Your task to perform on an android device: turn pop-ups on in chrome Image 0: 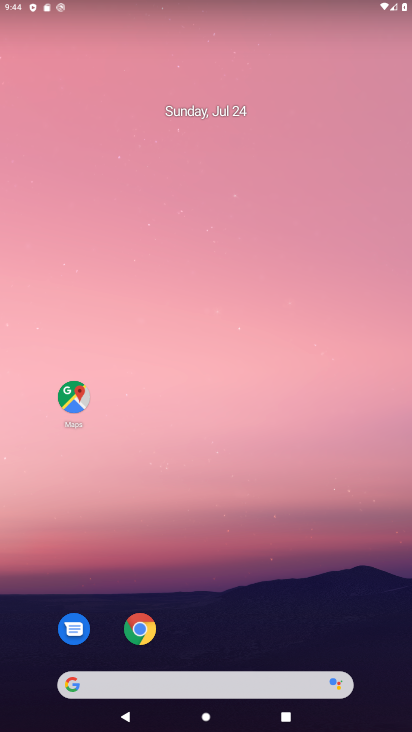
Step 0: click (140, 629)
Your task to perform on an android device: turn pop-ups on in chrome Image 1: 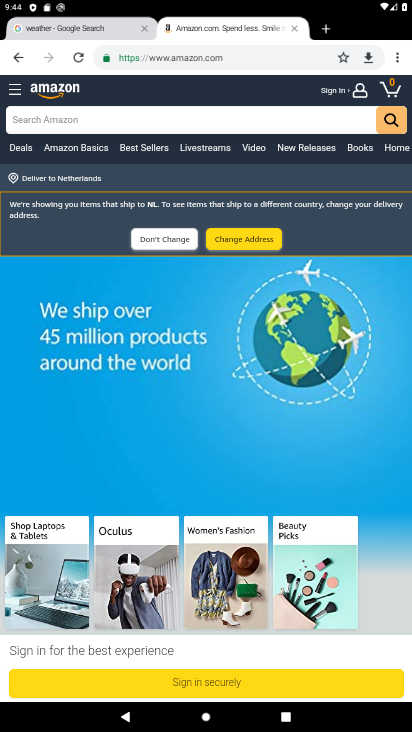
Step 1: click (397, 58)
Your task to perform on an android device: turn pop-ups on in chrome Image 2: 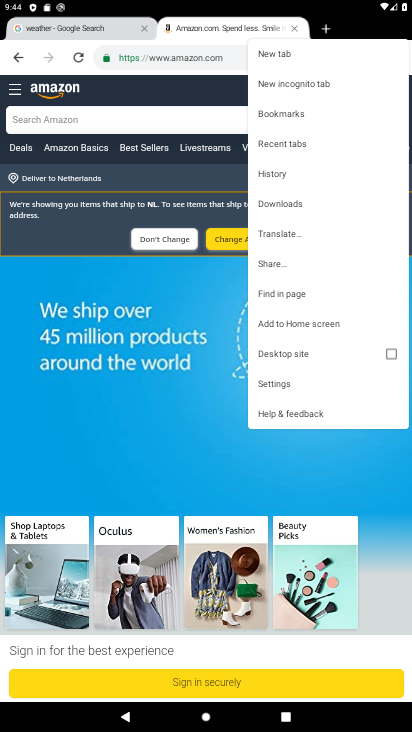
Step 2: click (280, 384)
Your task to perform on an android device: turn pop-ups on in chrome Image 3: 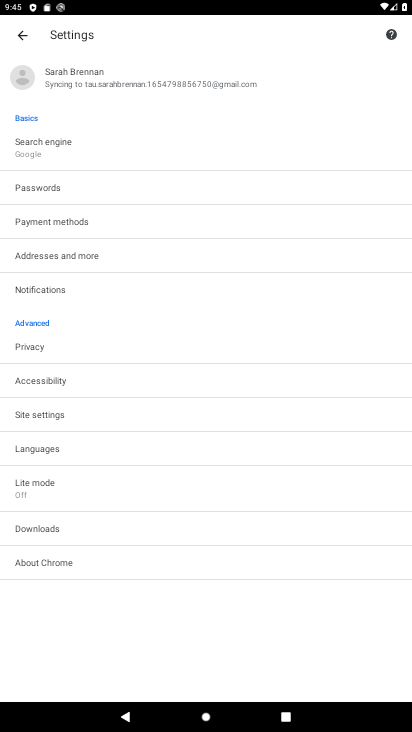
Step 3: click (37, 414)
Your task to perform on an android device: turn pop-ups on in chrome Image 4: 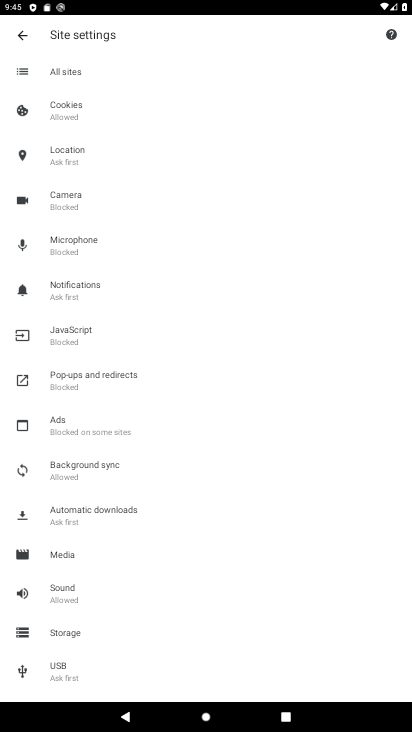
Step 4: click (74, 377)
Your task to perform on an android device: turn pop-ups on in chrome Image 5: 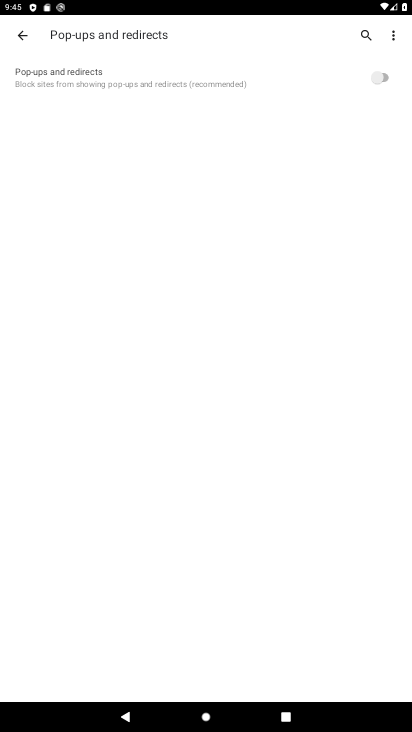
Step 5: click (381, 75)
Your task to perform on an android device: turn pop-ups on in chrome Image 6: 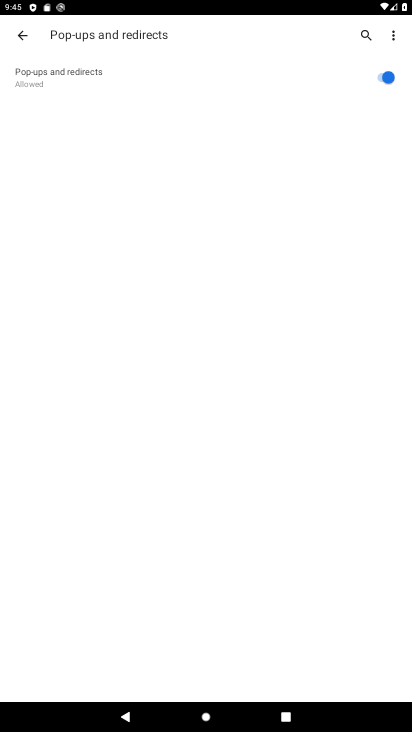
Step 6: task complete